Your task to perform on an android device: Open the map Image 0: 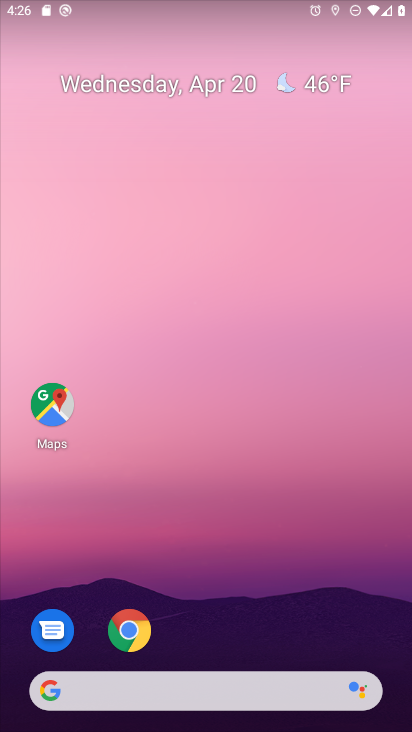
Step 0: drag from (251, 649) to (282, 18)
Your task to perform on an android device: Open the map Image 1: 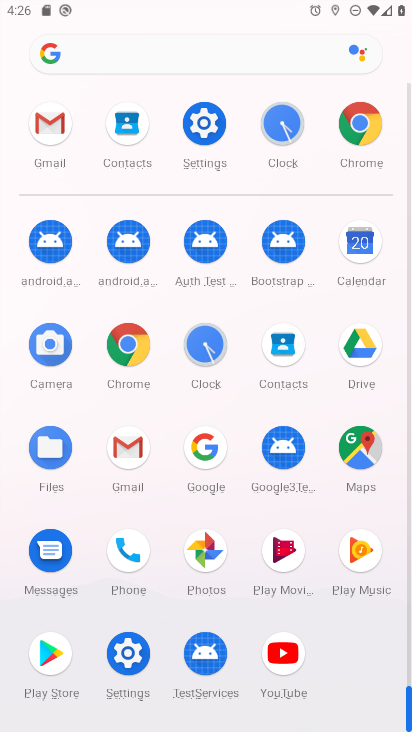
Step 1: click (360, 452)
Your task to perform on an android device: Open the map Image 2: 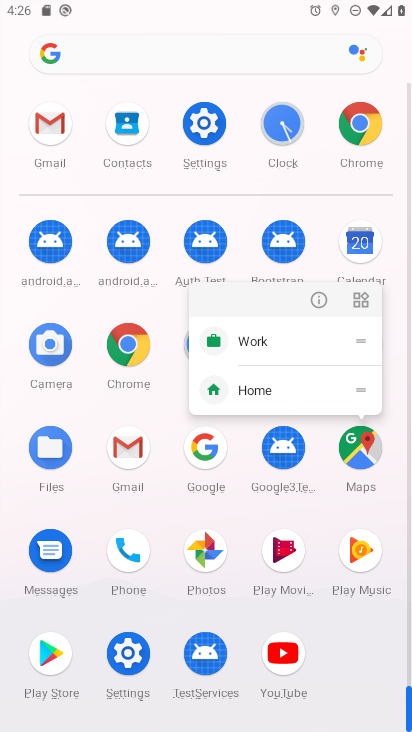
Step 2: click (366, 450)
Your task to perform on an android device: Open the map Image 3: 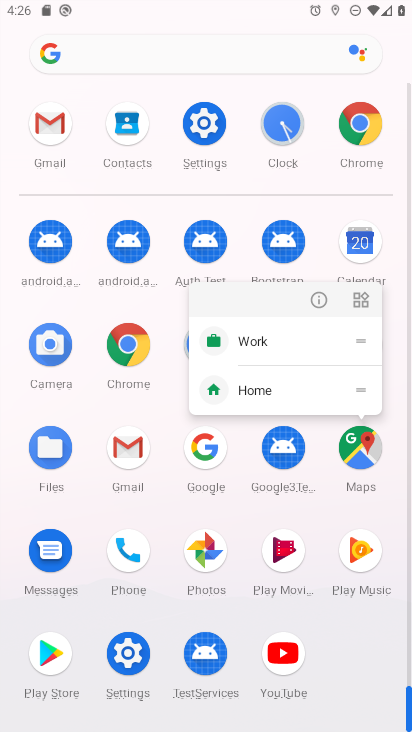
Step 3: click (366, 450)
Your task to perform on an android device: Open the map Image 4: 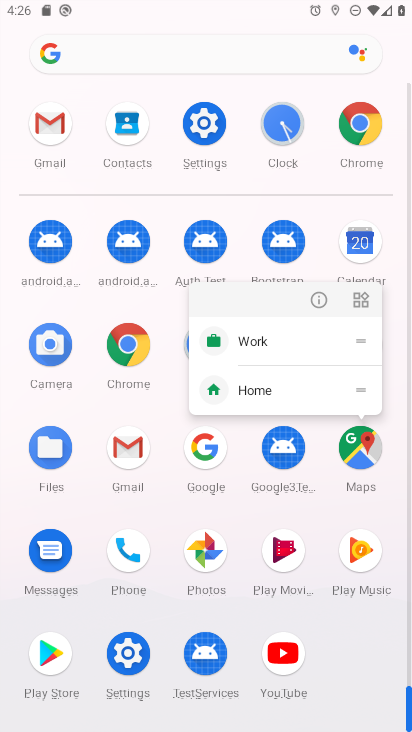
Step 4: click (366, 450)
Your task to perform on an android device: Open the map Image 5: 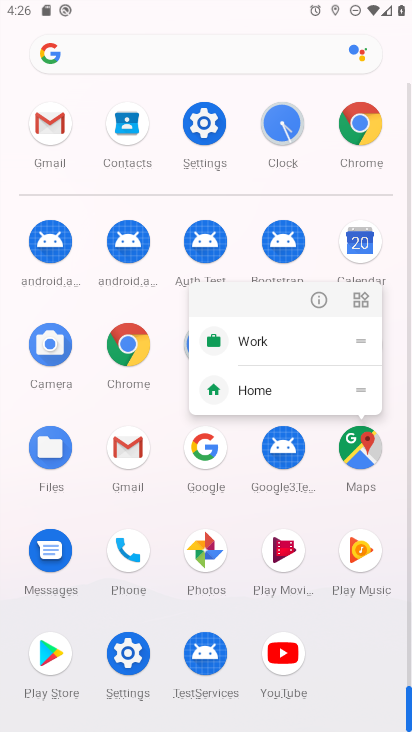
Step 5: click (366, 450)
Your task to perform on an android device: Open the map Image 6: 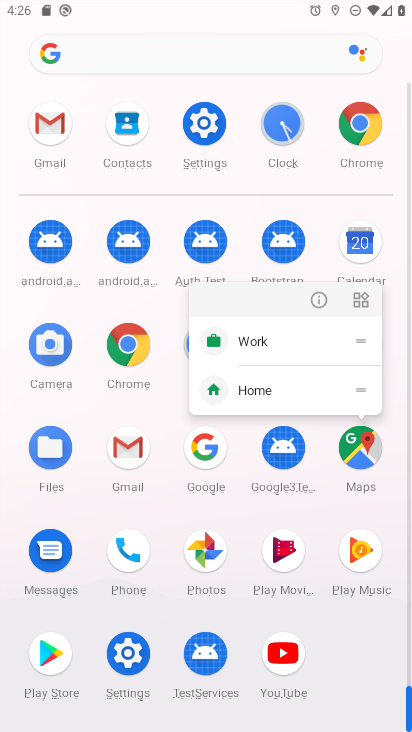
Step 6: click (366, 450)
Your task to perform on an android device: Open the map Image 7: 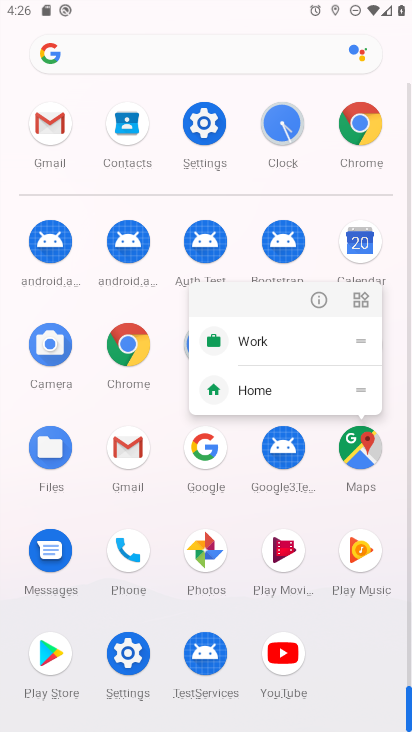
Step 7: click (366, 449)
Your task to perform on an android device: Open the map Image 8: 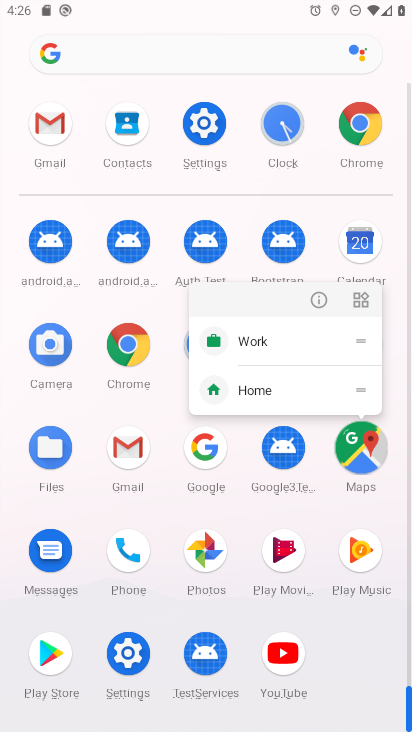
Step 8: click (373, 447)
Your task to perform on an android device: Open the map Image 9: 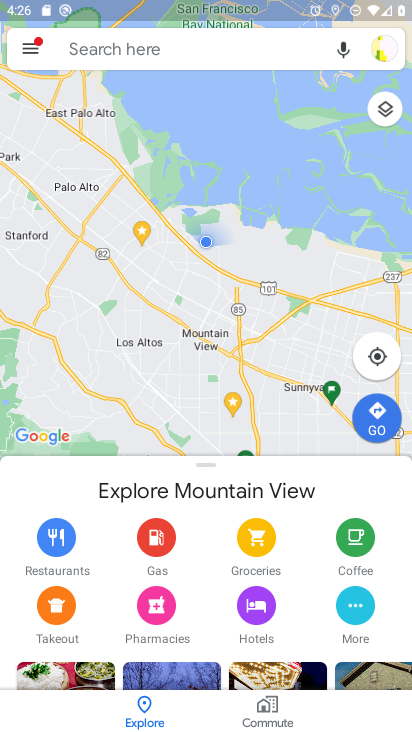
Step 9: task complete